Your task to perform on an android device: all mails in gmail Image 0: 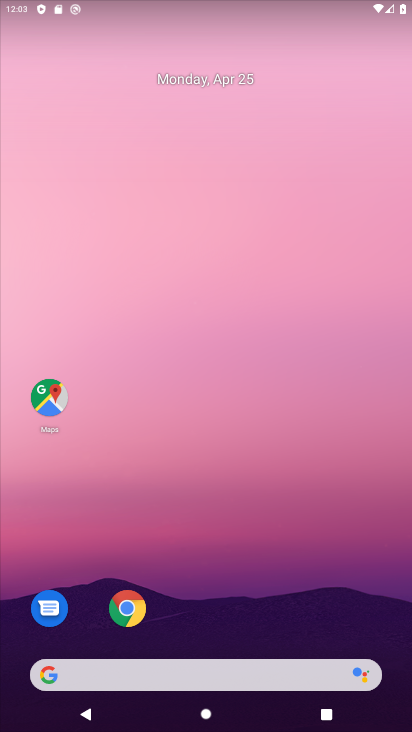
Step 0: drag from (229, 726) to (228, 98)
Your task to perform on an android device: all mails in gmail Image 1: 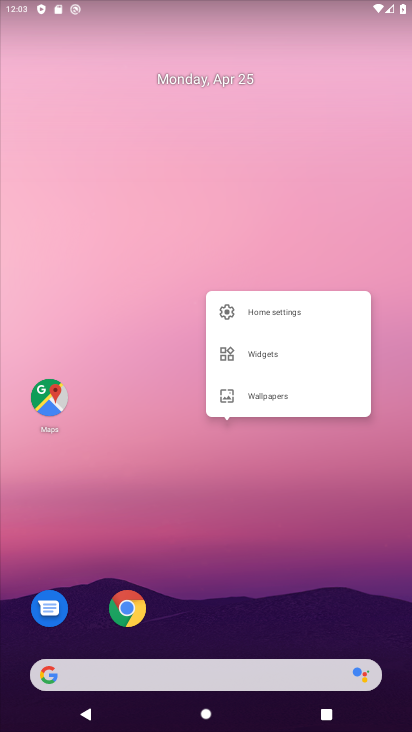
Step 1: click (273, 472)
Your task to perform on an android device: all mails in gmail Image 2: 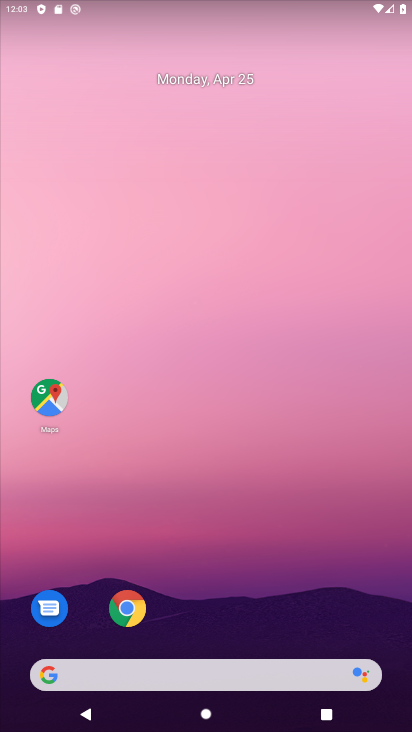
Step 2: drag from (224, 615) to (224, 179)
Your task to perform on an android device: all mails in gmail Image 3: 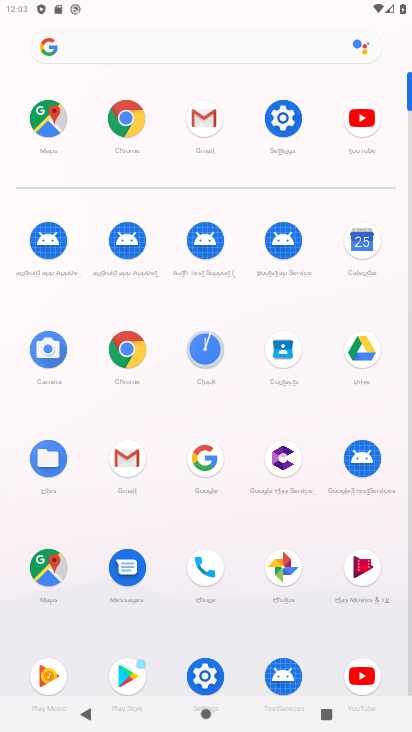
Step 3: click (207, 113)
Your task to perform on an android device: all mails in gmail Image 4: 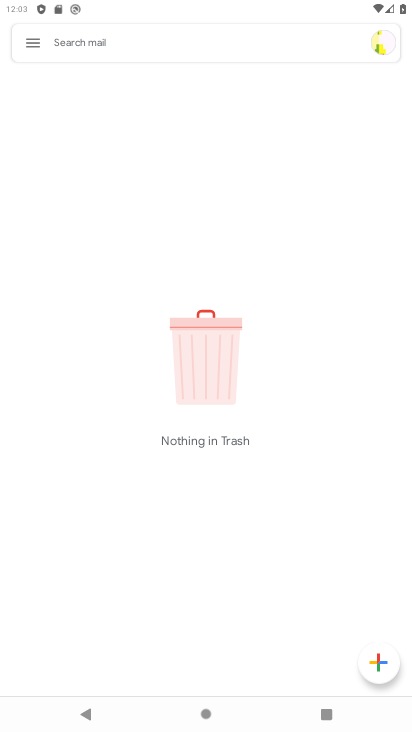
Step 4: click (26, 38)
Your task to perform on an android device: all mails in gmail Image 5: 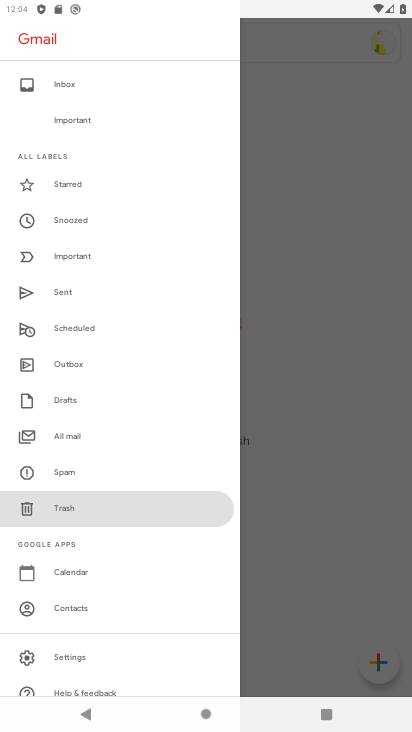
Step 5: click (82, 434)
Your task to perform on an android device: all mails in gmail Image 6: 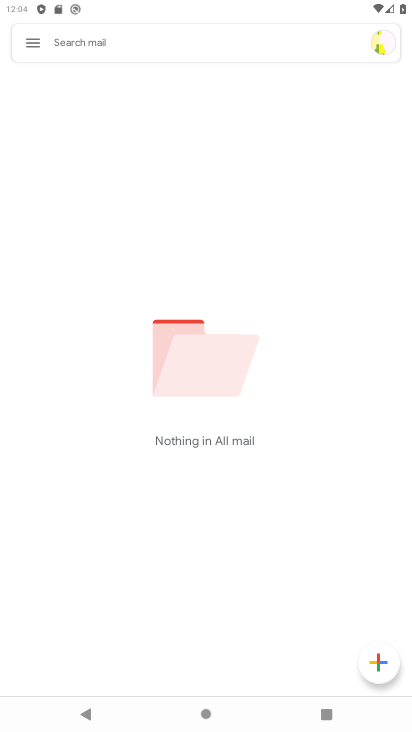
Step 6: task complete